Your task to perform on an android device: Open Chrome and go to the settings page Image 0: 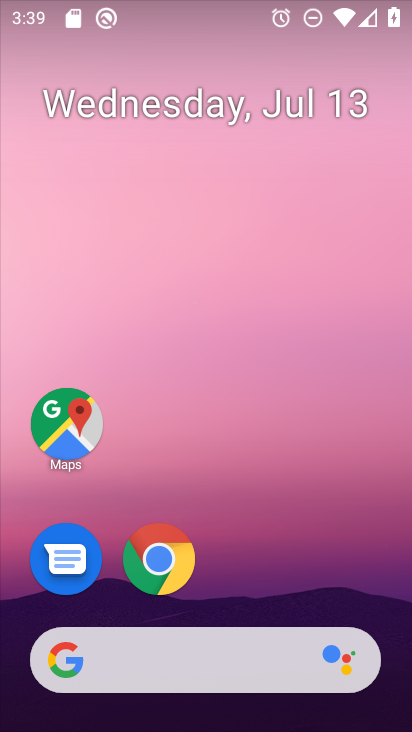
Step 0: drag from (353, 572) to (365, 129)
Your task to perform on an android device: Open Chrome and go to the settings page Image 1: 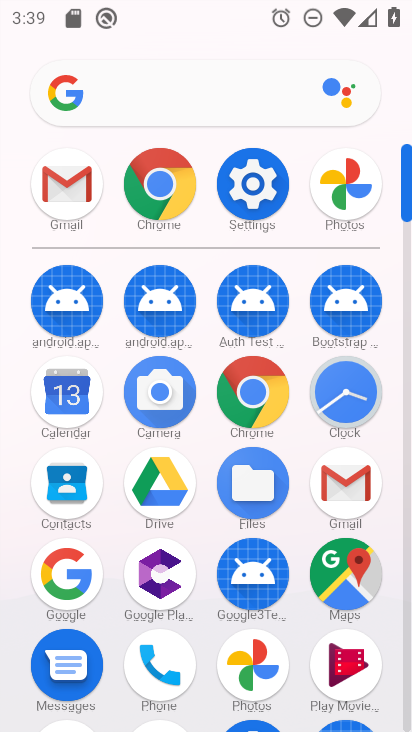
Step 1: click (262, 389)
Your task to perform on an android device: Open Chrome and go to the settings page Image 2: 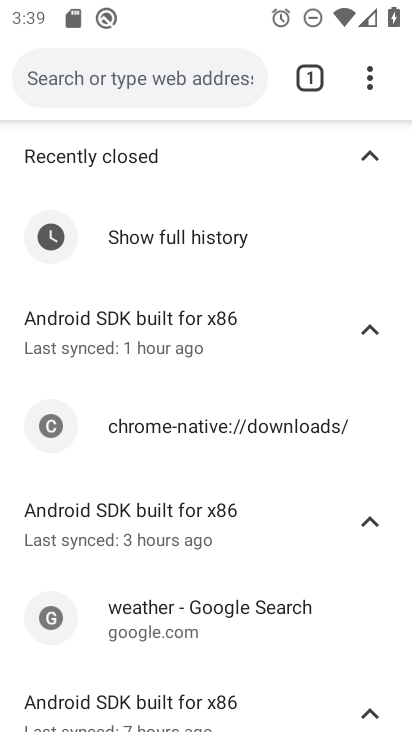
Step 2: click (370, 88)
Your task to perform on an android device: Open Chrome and go to the settings page Image 3: 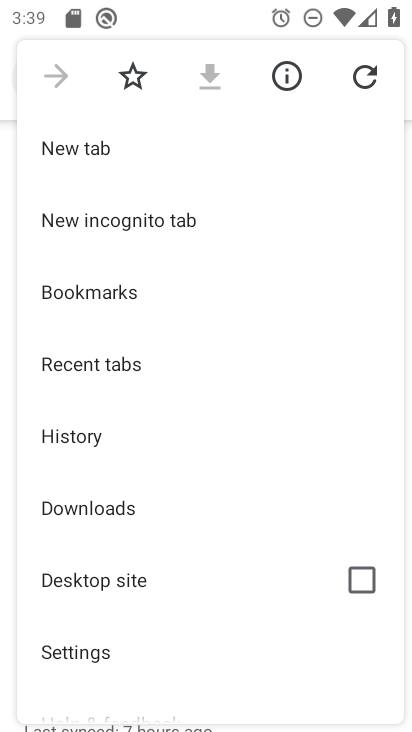
Step 3: drag from (292, 342) to (299, 258)
Your task to perform on an android device: Open Chrome and go to the settings page Image 4: 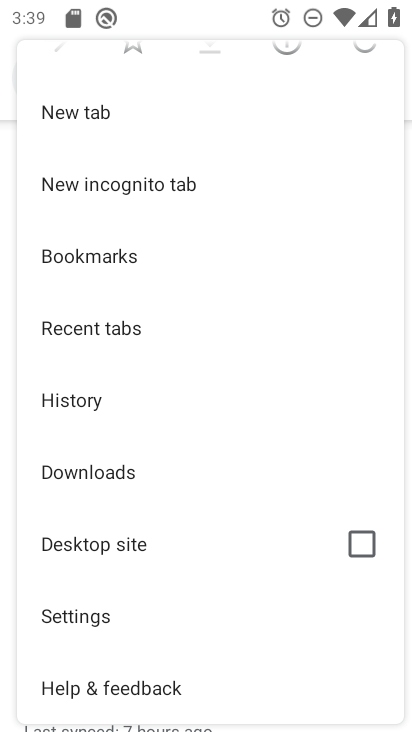
Step 4: click (178, 613)
Your task to perform on an android device: Open Chrome and go to the settings page Image 5: 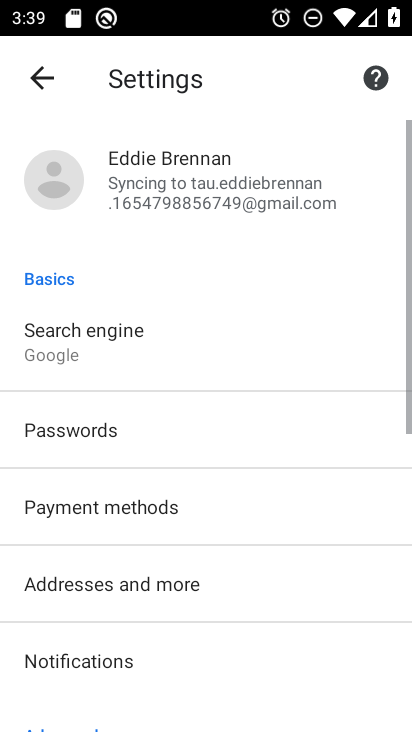
Step 5: task complete